Your task to perform on an android device: turn off notifications in google photos Image 0: 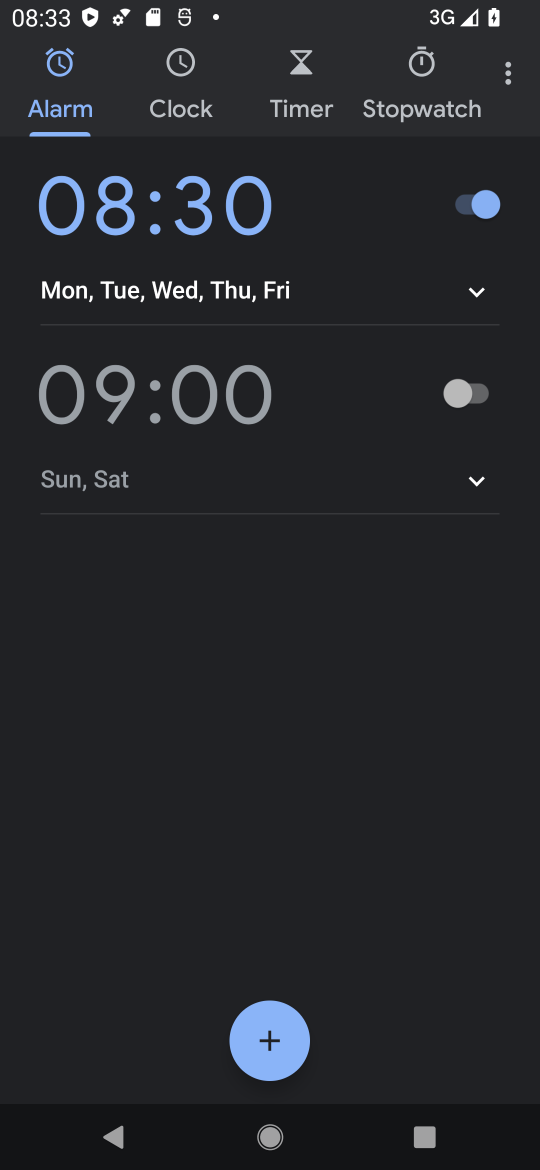
Step 0: press home button
Your task to perform on an android device: turn off notifications in google photos Image 1: 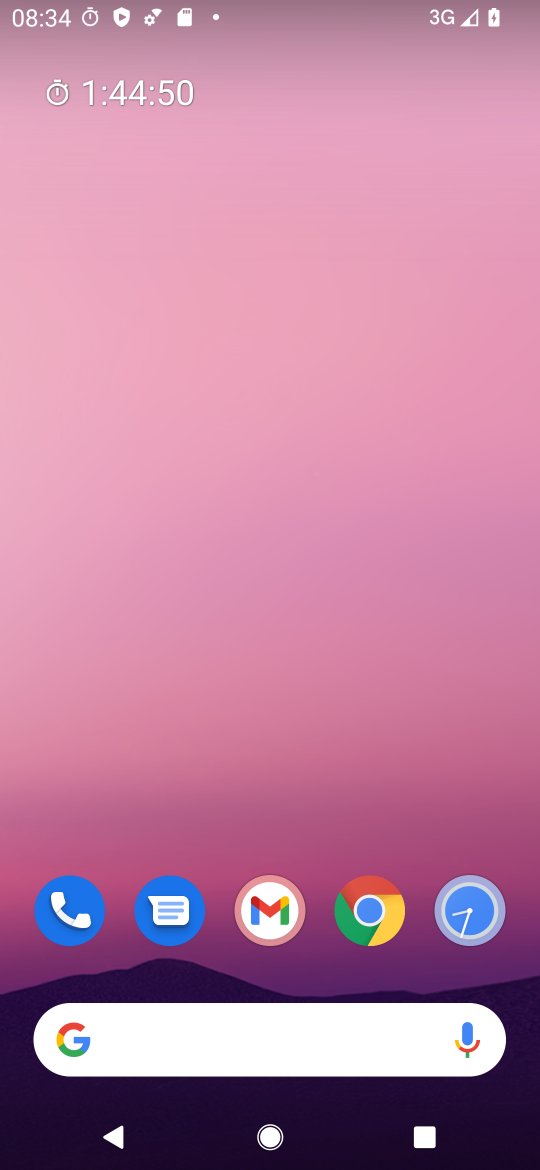
Step 1: drag from (286, 1037) to (346, 49)
Your task to perform on an android device: turn off notifications in google photos Image 2: 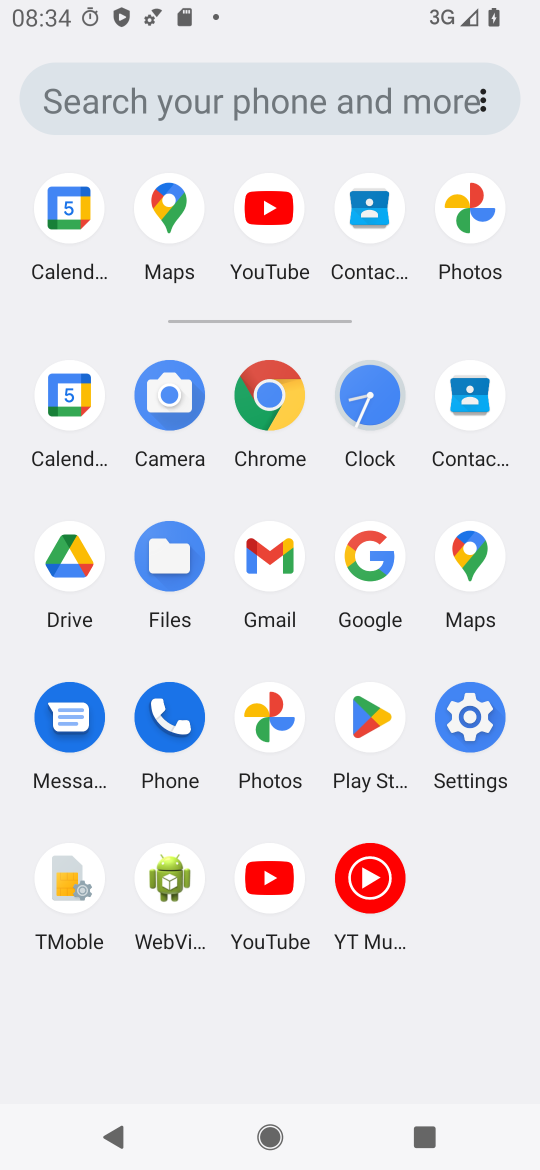
Step 2: click (270, 723)
Your task to perform on an android device: turn off notifications in google photos Image 3: 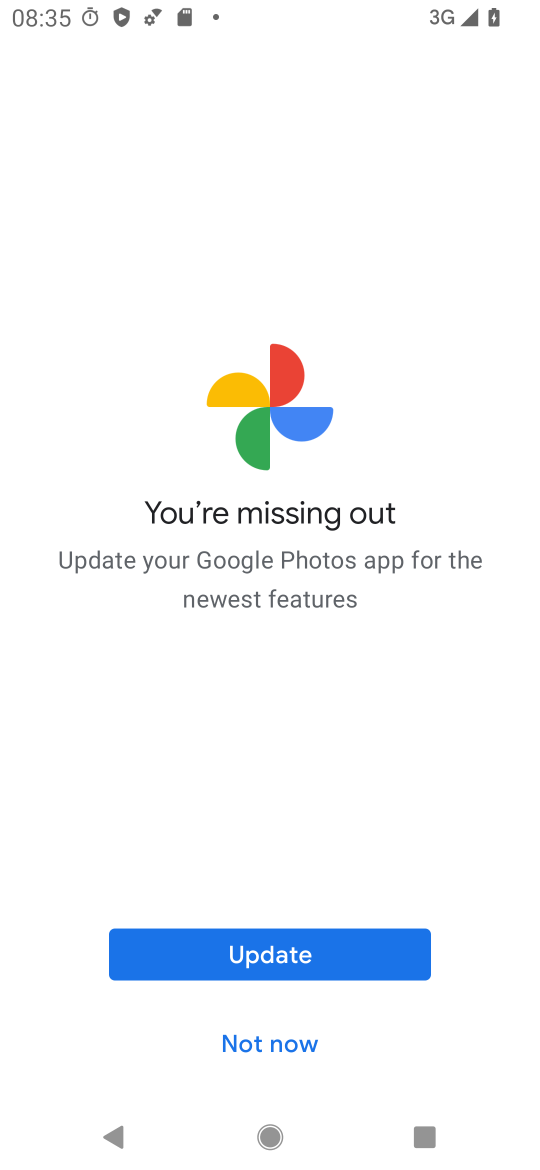
Step 3: click (258, 1036)
Your task to perform on an android device: turn off notifications in google photos Image 4: 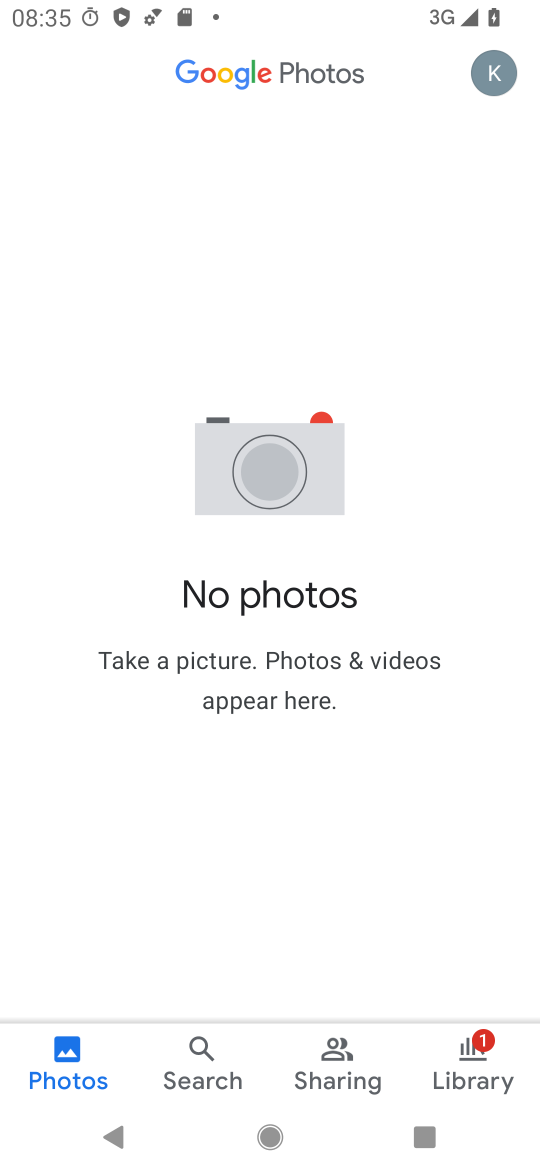
Step 4: click (499, 79)
Your task to perform on an android device: turn off notifications in google photos Image 5: 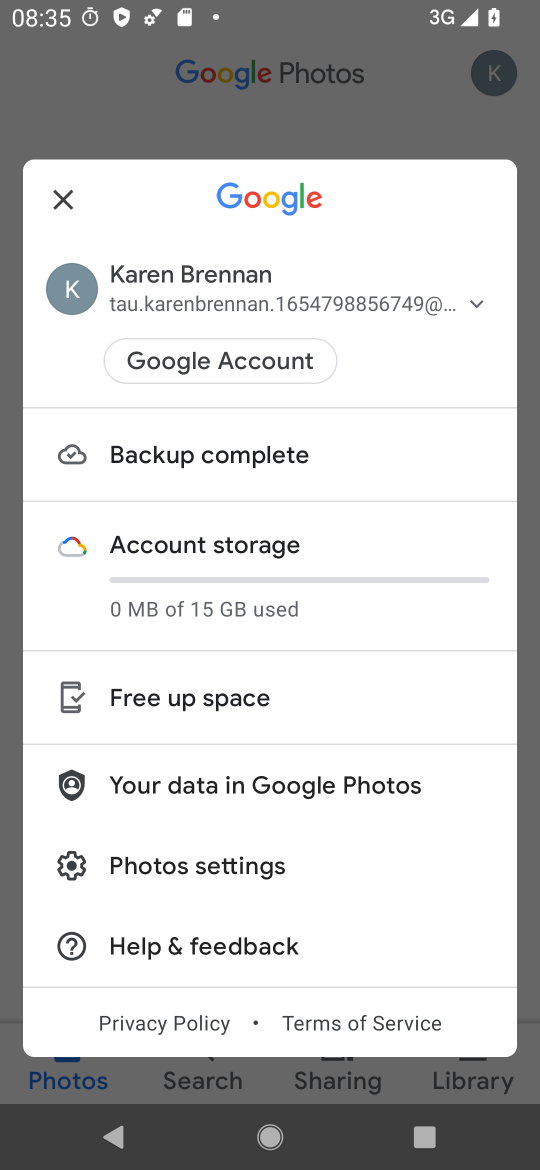
Step 5: click (210, 867)
Your task to perform on an android device: turn off notifications in google photos Image 6: 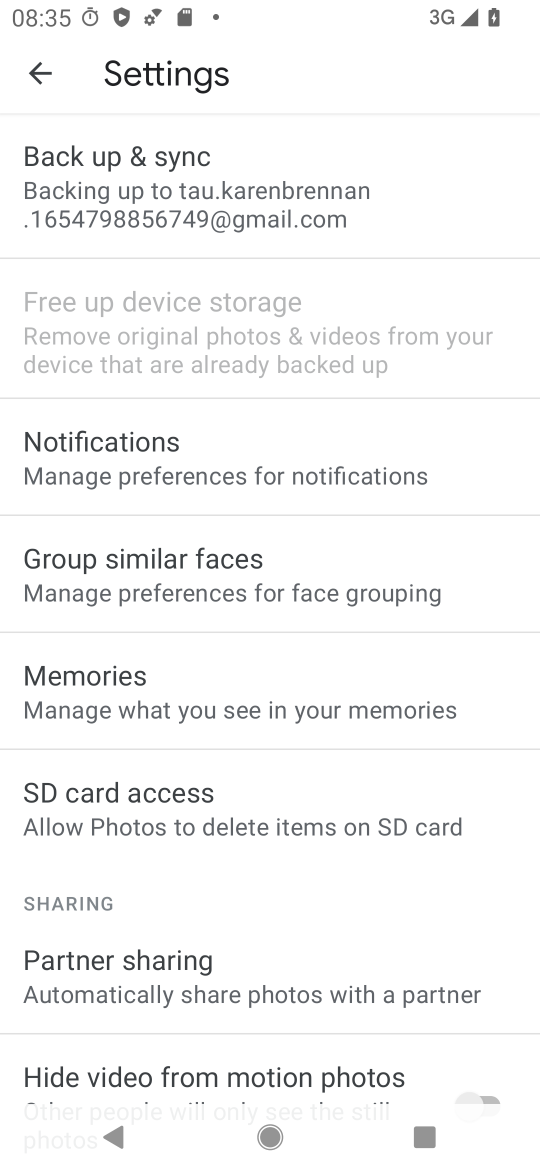
Step 6: click (140, 481)
Your task to perform on an android device: turn off notifications in google photos Image 7: 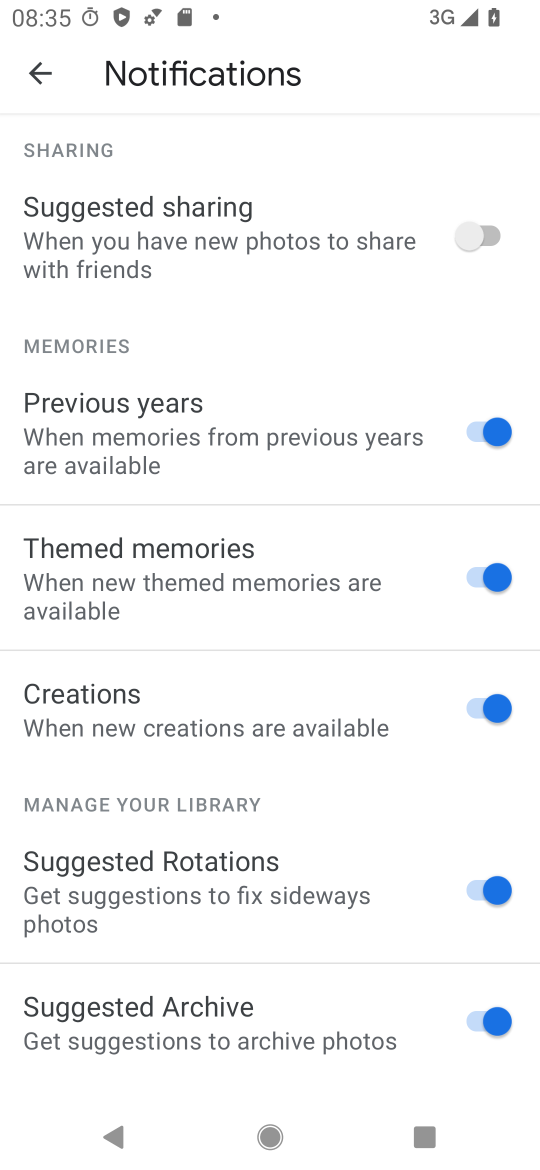
Step 7: drag from (299, 1059) to (291, 836)
Your task to perform on an android device: turn off notifications in google photos Image 8: 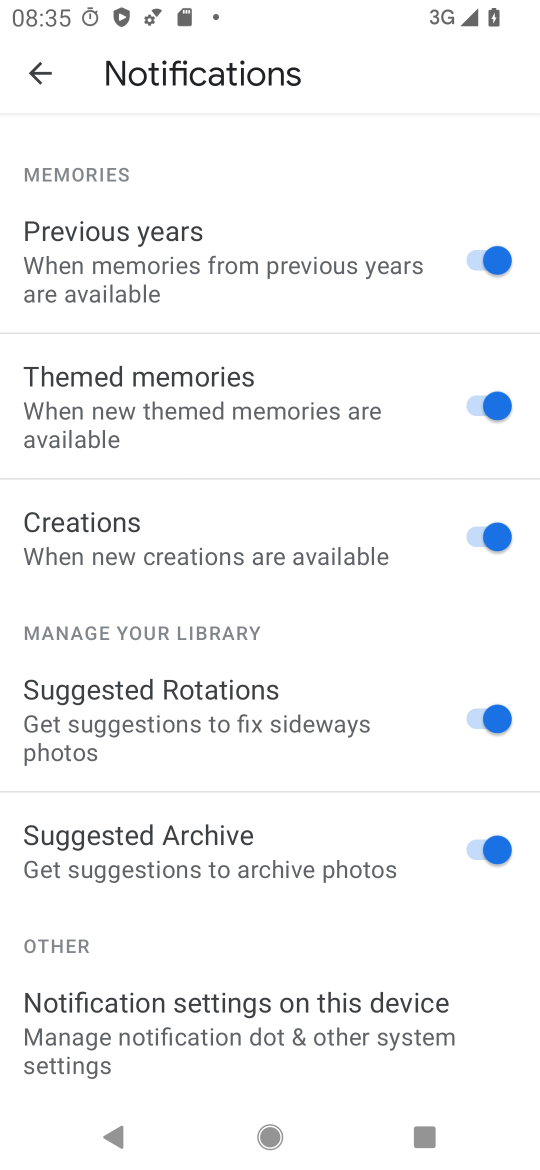
Step 8: click (231, 1018)
Your task to perform on an android device: turn off notifications in google photos Image 9: 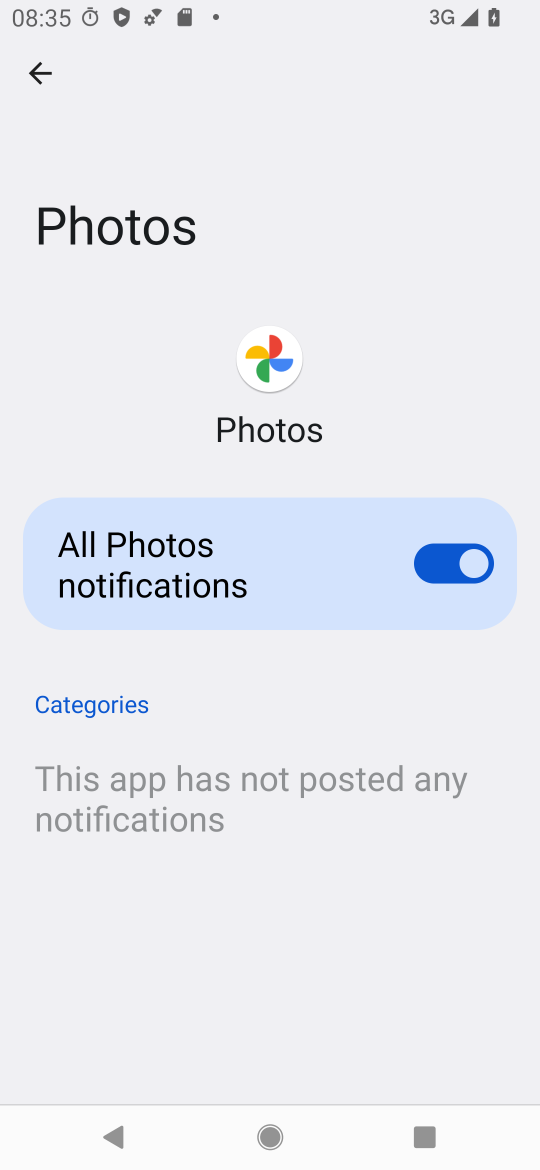
Step 9: click (449, 552)
Your task to perform on an android device: turn off notifications in google photos Image 10: 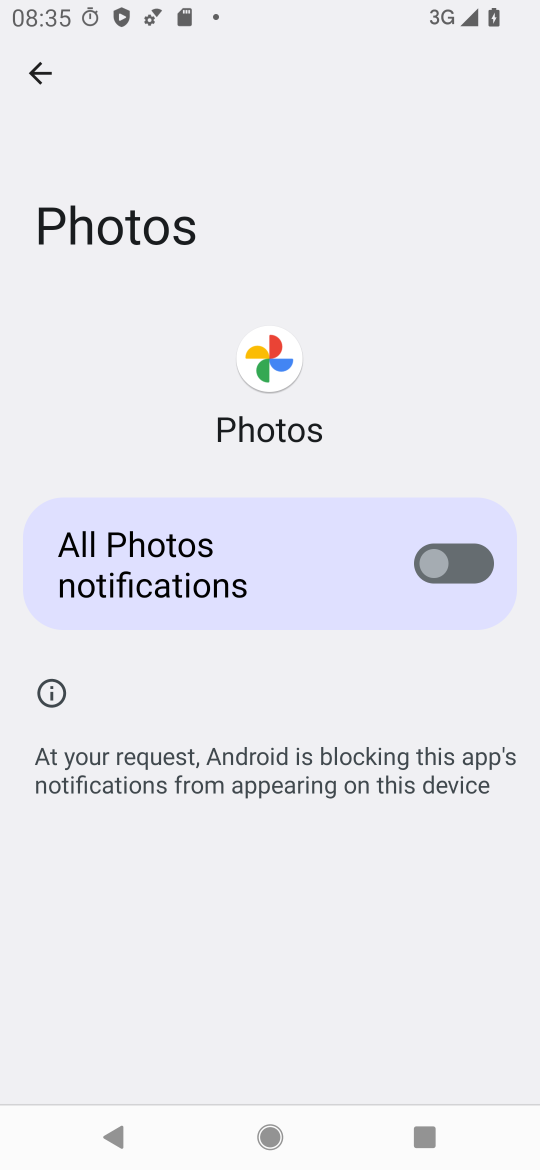
Step 10: task complete